Your task to perform on an android device: add a contact in the contacts app Image 0: 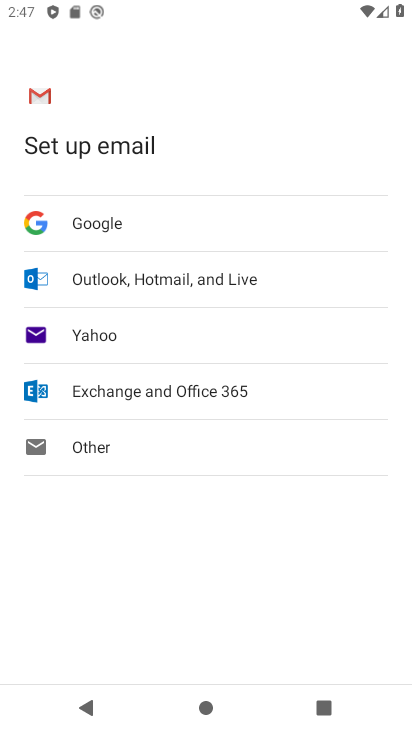
Step 0: press home button
Your task to perform on an android device: add a contact in the contacts app Image 1: 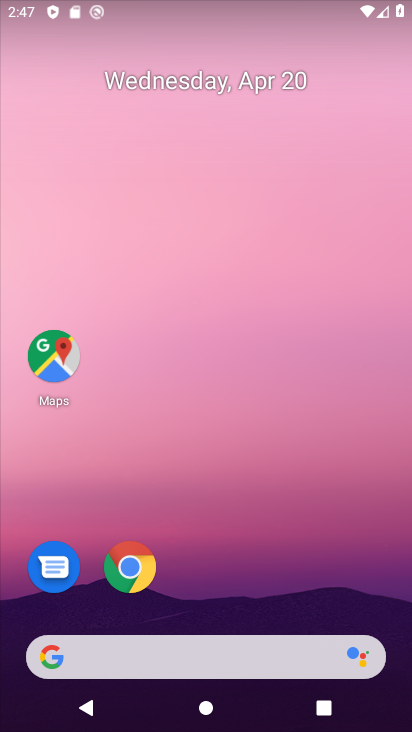
Step 1: drag from (281, 577) to (276, 185)
Your task to perform on an android device: add a contact in the contacts app Image 2: 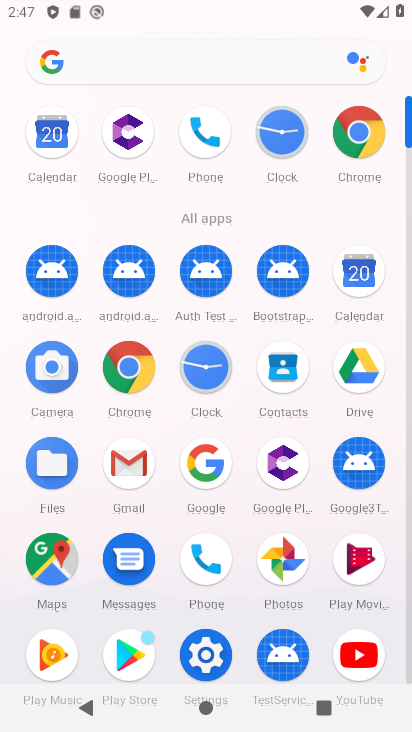
Step 2: click (288, 377)
Your task to perform on an android device: add a contact in the contacts app Image 3: 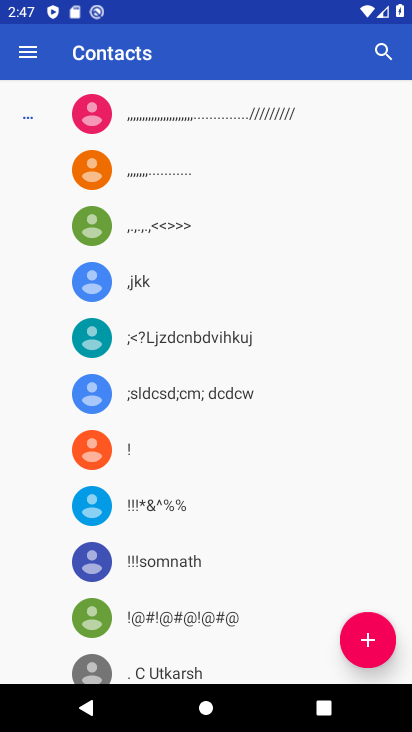
Step 3: click (374, 641)
Your task to perform on an android device: add a contact in the contacts app Image 4: 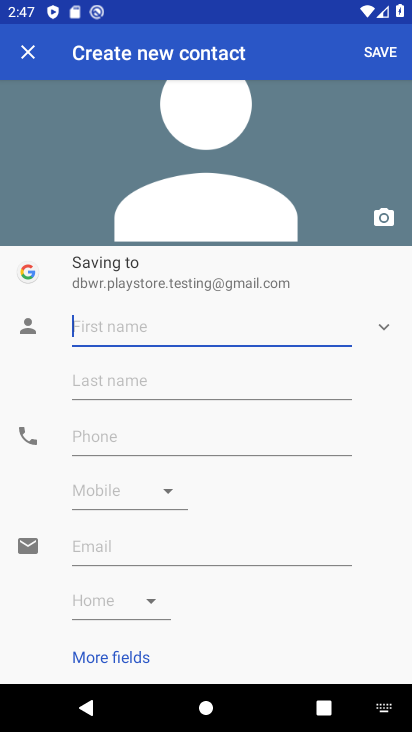
Step 4: click (164, 326)
Your task to perform on an android device: add a contact in the contacts app Image 5: 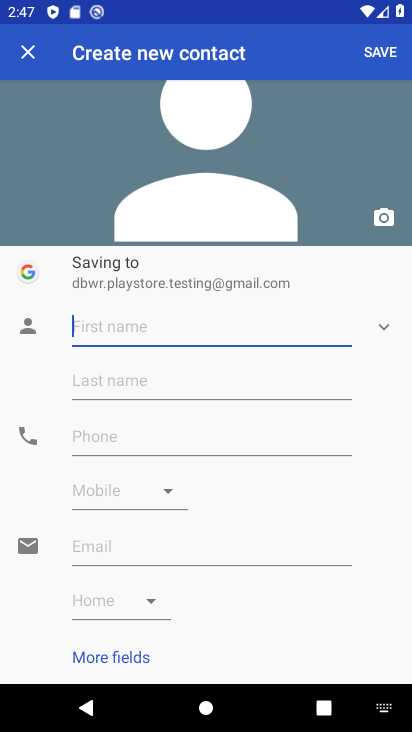
Step 5: type "kgdkasg"
Your task to perform on an android device: add a contact in the contacts app Image 6: 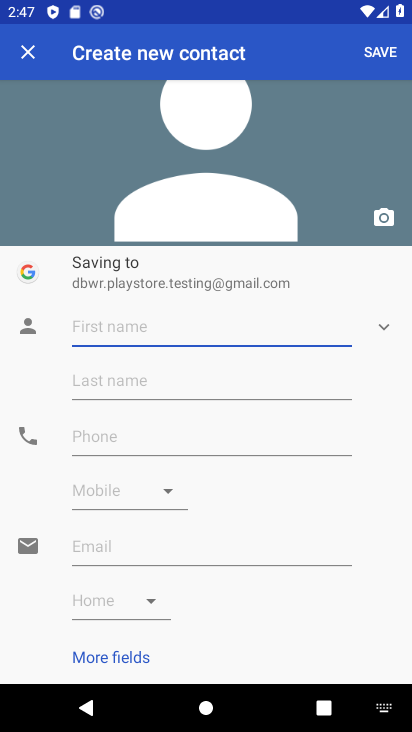
Step 6: click (286, 438)
Your task to perform on an android device: add a contact in the contacts app Image 7: 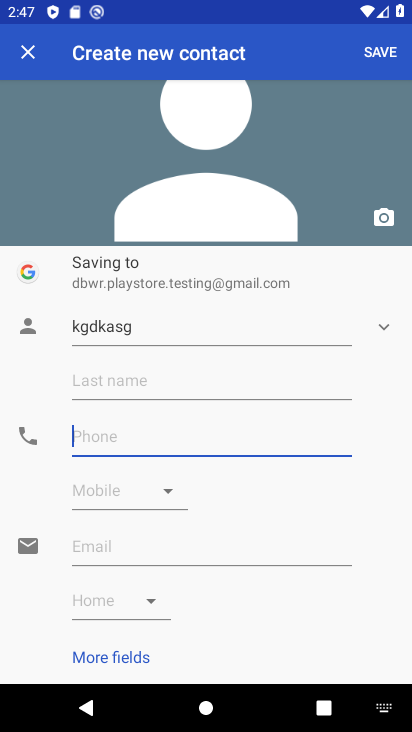
Step 7: type "639763972"
Your task to perform on an android device: add a contact in the contacts app Image 8: 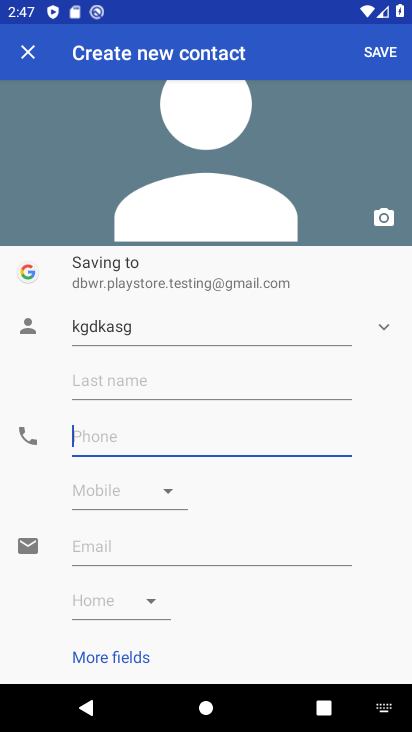
Step 8: click (397, 526)
Your task to perform on an android device: add a contact in the contacts app Image 9: 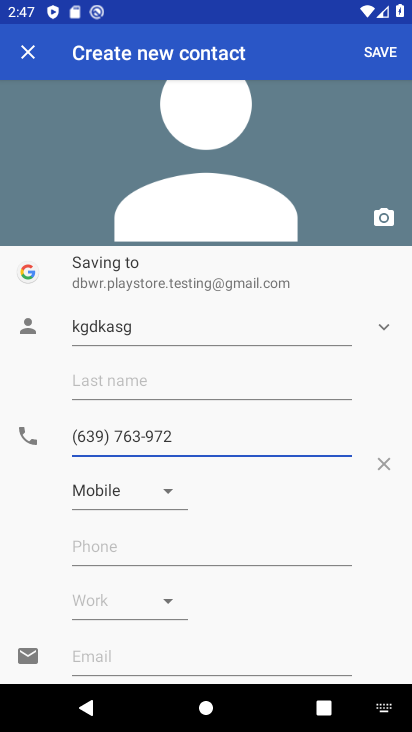
Step 9: click (386, 61)
Your task to perform on an android device: add a contact in the contacts app Image 10: 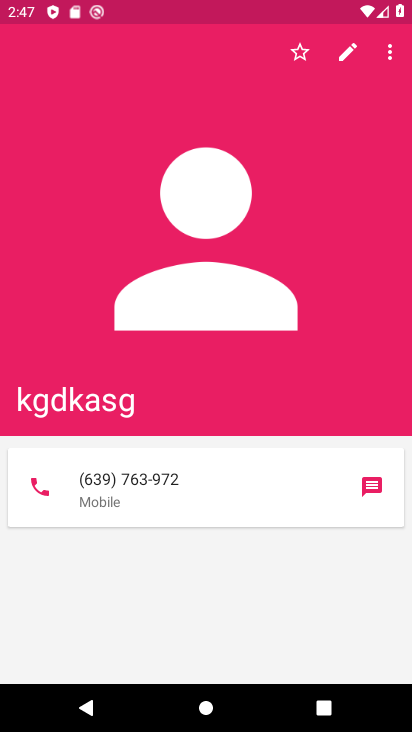
Step 10: task complete